Your task to perform on an android device: Show me popular videos on Youtube Image 0: 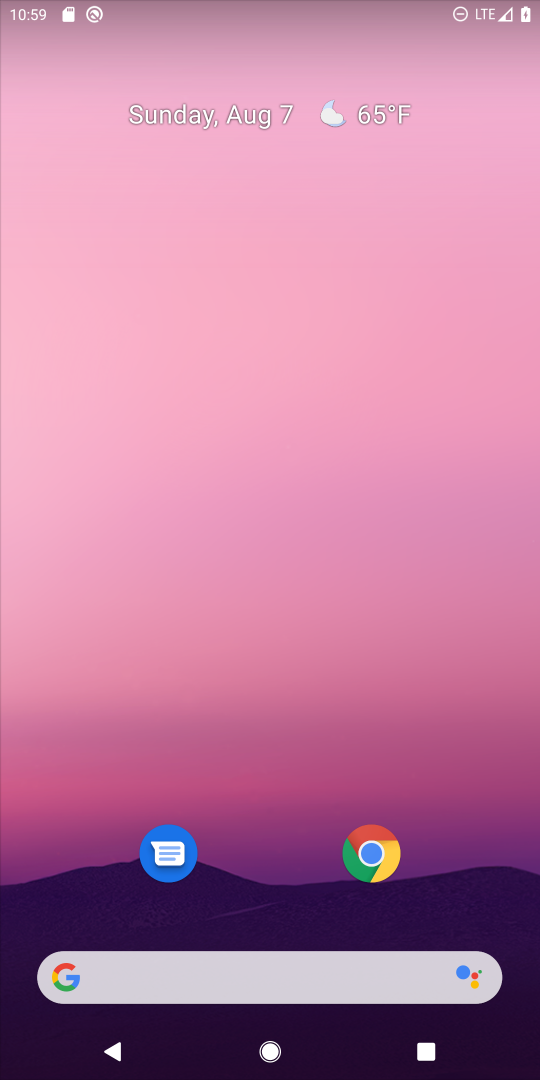
Step 0: drag from (292, 874) to (351, 282)
Your task to perform on an android device: Show me popular videos on Youtube Image 1: 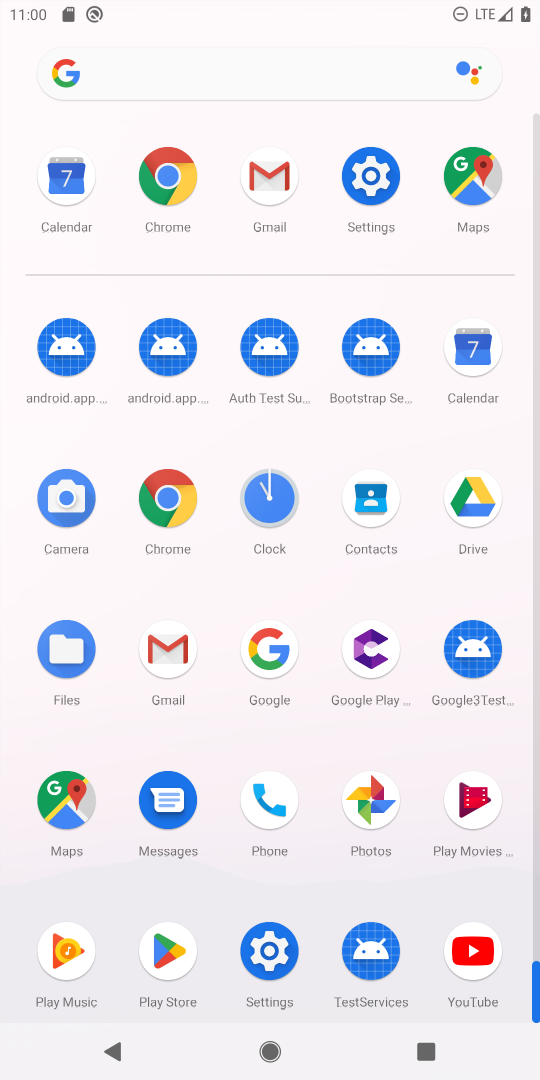
Step 1: click (451, 940)
Your task to perform on an android device: Show me popular videos on Youtube Image 2: 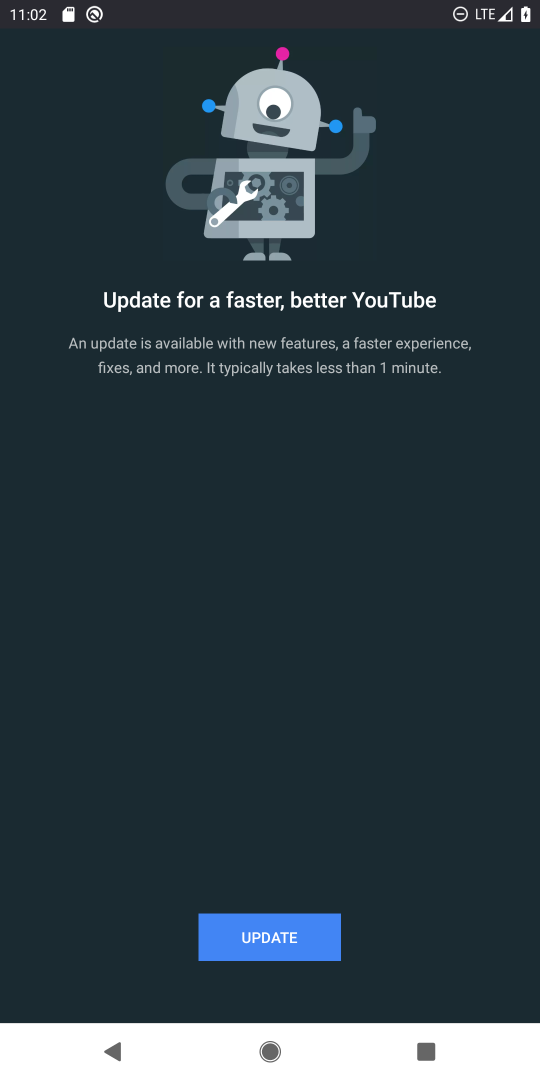
Step 2: task complete